Your task to perform on an android device: visit the assistant section in the google photos Image 0: 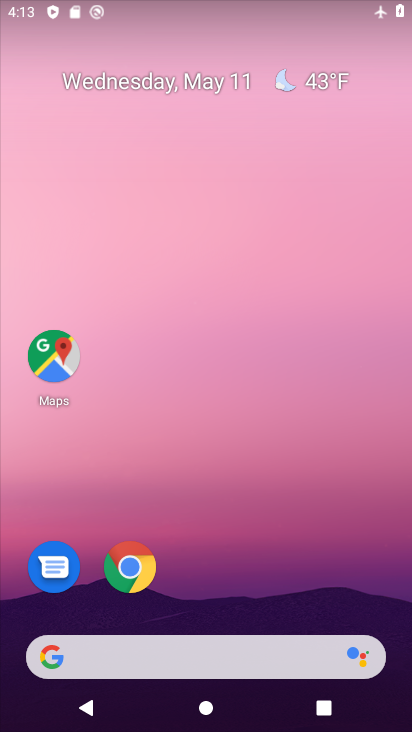
Step 0: drag from (281, 599) to (289, 136)
Your task to perform on an android device: visit the assistant section in the google photos Image 1: 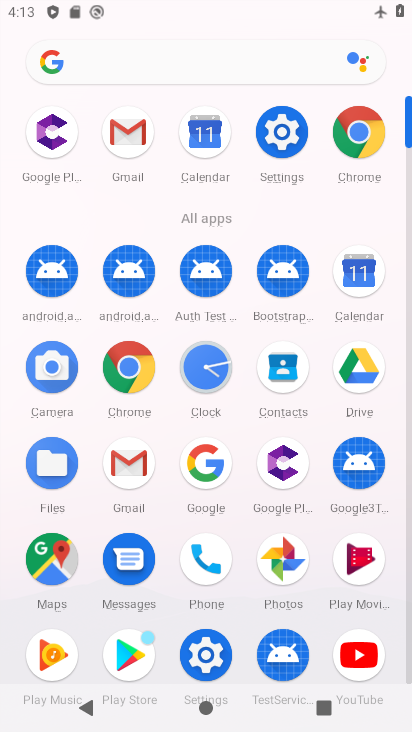
Step 1: click (291, 548)
Your task to perform on an android device: visit the assistant section in the google photos Image 2: 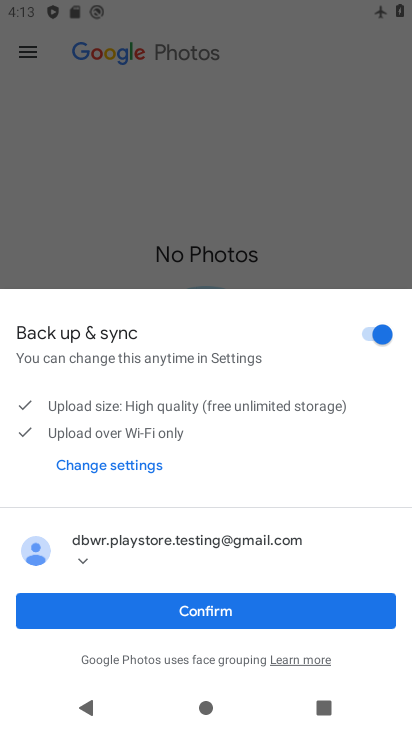
Step 2: click (291, 607)
Your task to perform on an android device: visit the assistant section in the google photos Image 3: 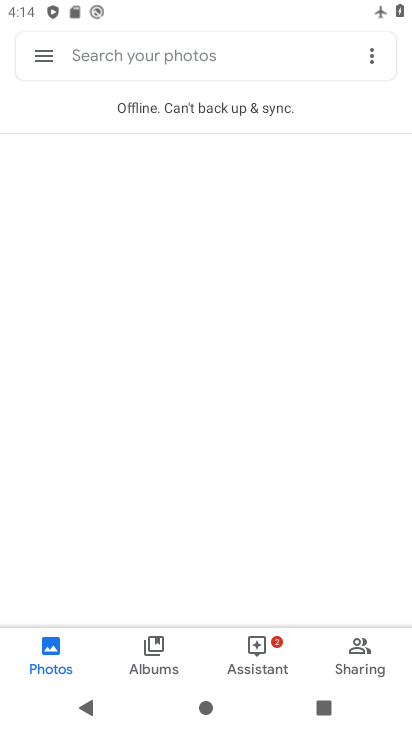
Step 3: click (262, 660)
Your task to perform on an android device: visit the assistant section in the google photos Image 4: 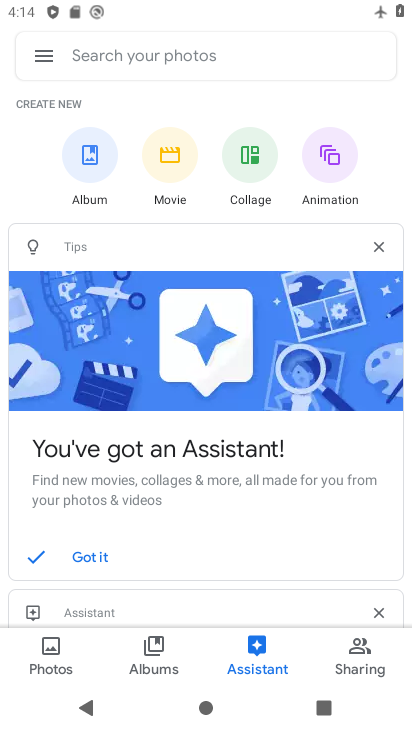
Step 4: task complete